Your task to perform on an android device: turn pop-ups off in chrome Image 0: 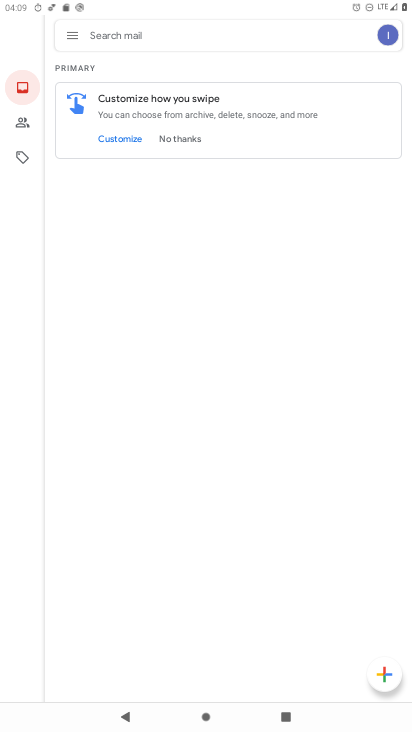
Step 0: press home button
Your task to perform on an android device: turn pop-ups off in chrome Image 1: 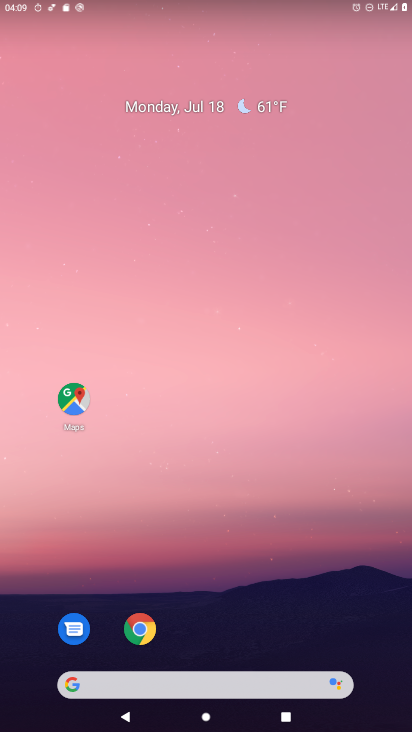
Step 1: click (138, 630)
Your task to perform on an android device: turn pop-ups off in chrome Image 2: 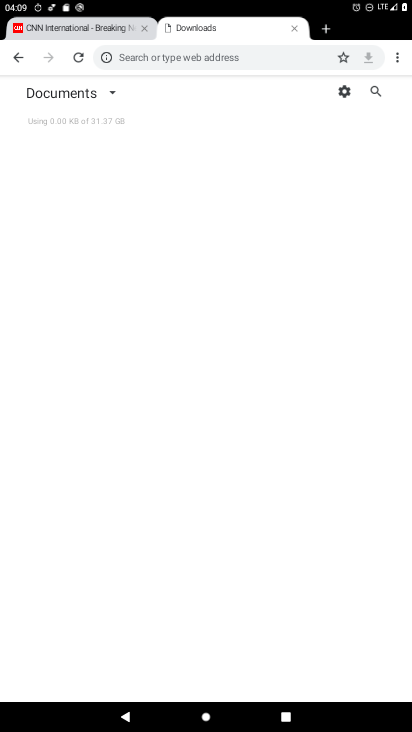
Step 2: click (396, 56)
Your task to perform on an android device: turn pop-ups off in chrome Image 3: 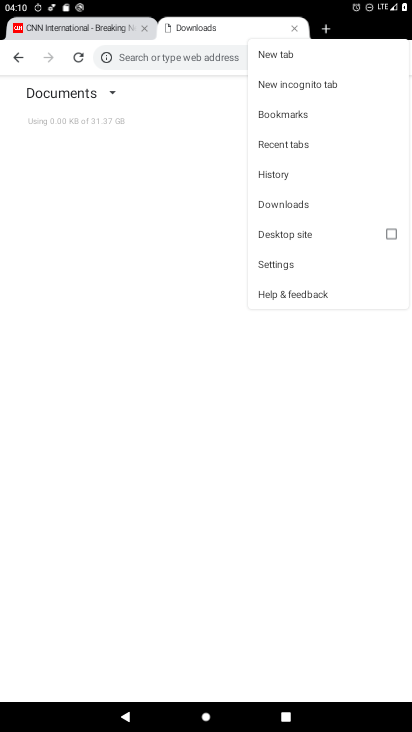
Step 3: click (278, 264)
Your task to perform on an android device: turn pop-ups off in chrome Image 4: 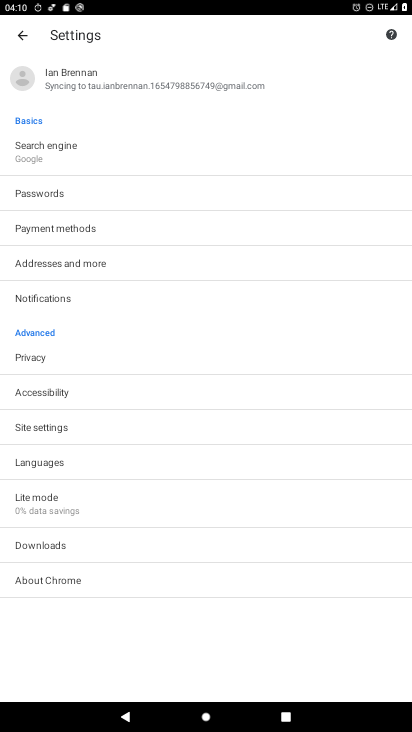
Step 4: click (58, 427)
Your task to perform on an android device: turn pop-ups off in chrome Image 5: 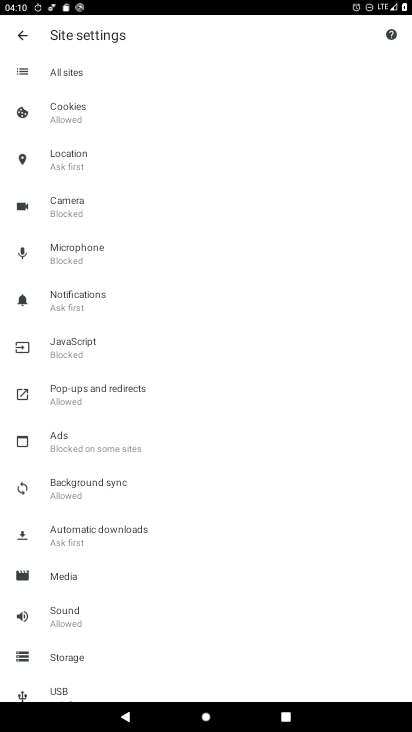
Step 5: click (78, 405)
Your task to perform on an android device: turn pop-ups off in chrome Image 6: 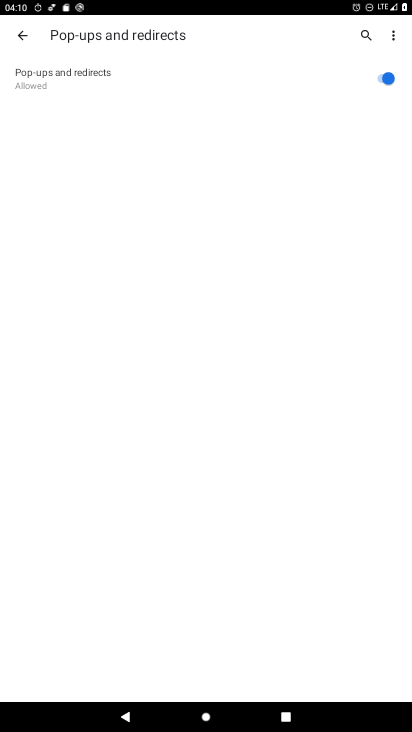
Step 6: click (390, 75)
Your task to perform on an android device: turn pop-ups off in chrome Image 7: 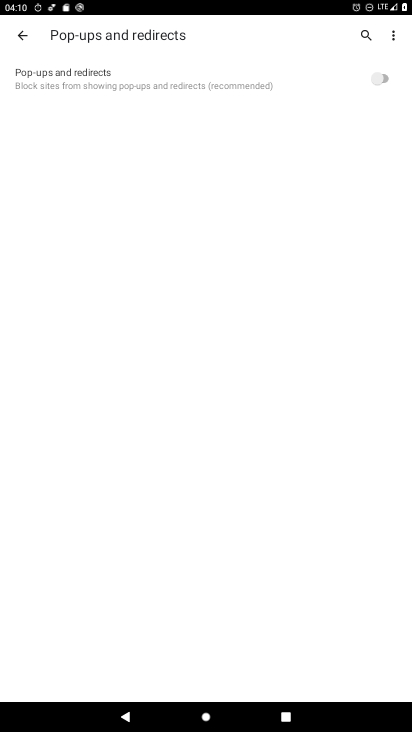
Step 7: task complete